Your task to perform on an android device: all mails in gmail Image 0: 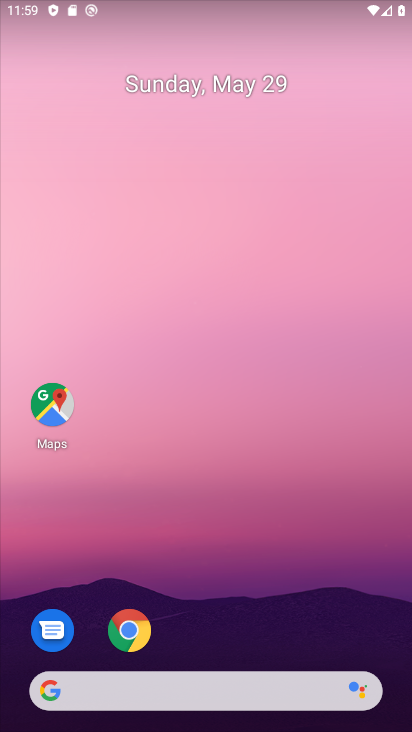
Step 0: drag from (128, 652) to (18, 64)
Your task to perform on an android device: all mails in gmail Image 1: 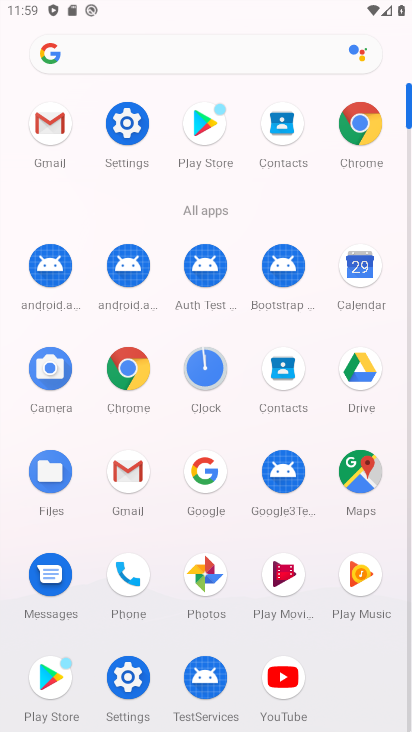
Step 1: click (117, 471)
Your task to perform on an android device: all mails in gmail Image 2: 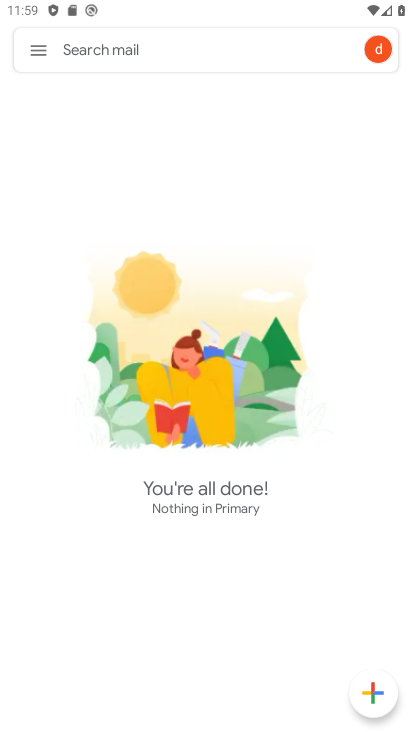
Step 2: click (33, 47)
Your task to perform on an android device: all mails in gmail Image 3: 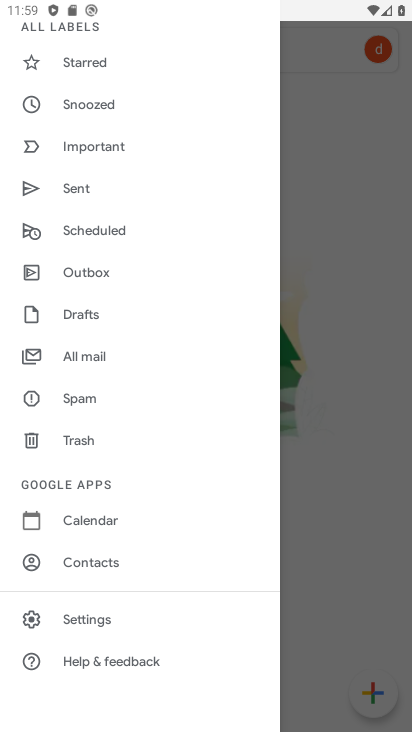
Step 3: click (96, 361)
Your task to perform on an android device: all mails in gmail Image 4: 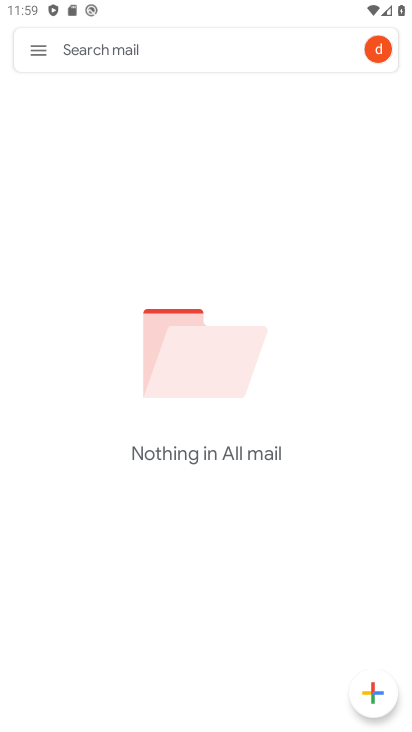
Step 4: task complete